Your task to perform on an android device: Open location settings Image 0: 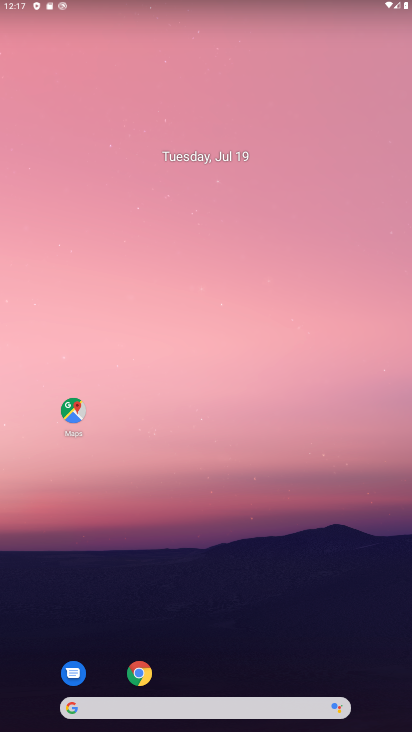
Step 0: drag from (390, 654) to (221, 80)
Your task to perform on an android device: Open location settings Image 1: 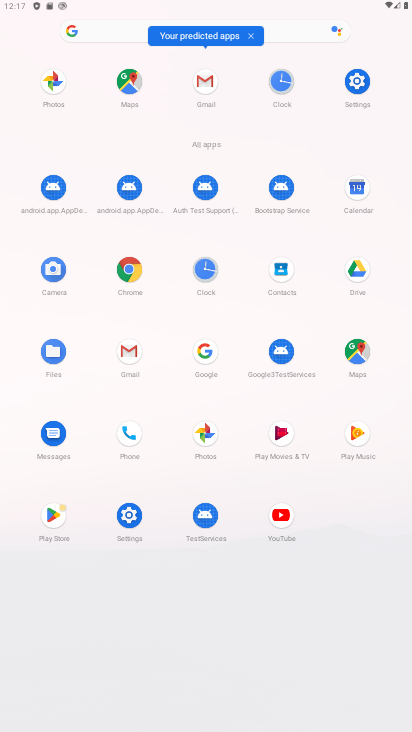
Step 1: click (354, 79)
Your task to perform on an android device: Open location settings Image 2: 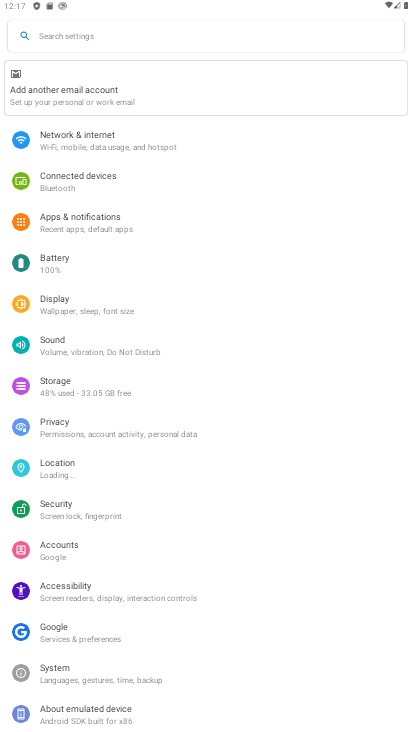
Step 2: click (102, 472)
Your task to perform on an android device: Open location settings Image 3: 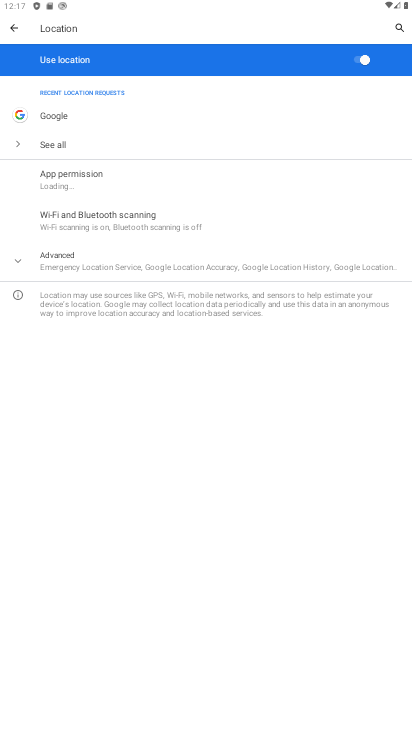
Step 3: task complete